Your task to perform on an android device: Add "dell alienware" to the cart on ebay.com Image 0: 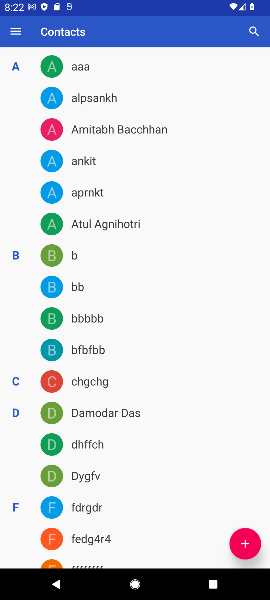
Step 0: press home button
Your task to perform on an android device: Add "dell alienware" to the cart on ebay.com Image 1: 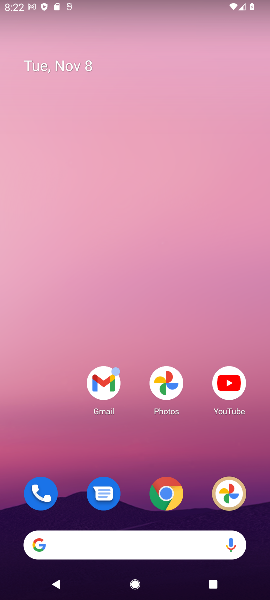
Step 1: click (175, 498)
Your task to perform on an android device: Add "dell alienware" to the cart on ebay.com Image 2: 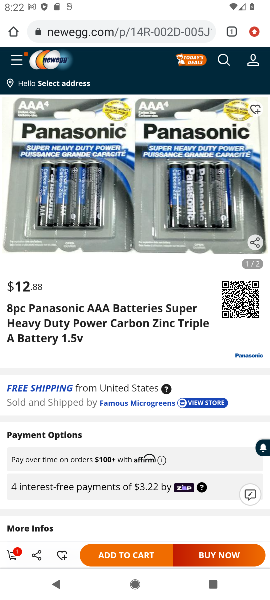
Step 2: click (129, 37)
Your task to perform on an android device: Add "dell alienware" to the cart on ebay.com Image 3: 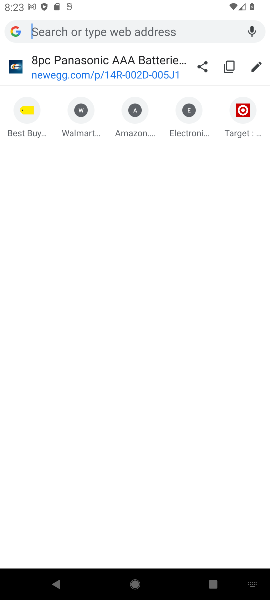
Step 3: type "ebay.com"
Your task to perform on an android device: Add "dell alienware" to the cart on ebay.com Image 4: 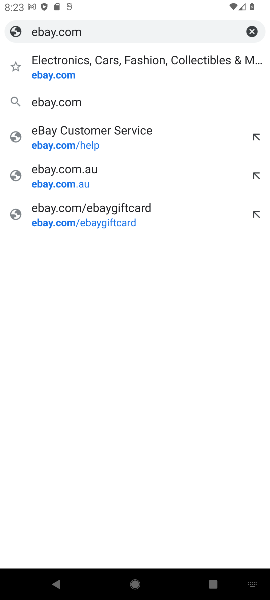
Step 4: click (60, 73)
Your task to perform on an android device: Add "dell alienware" to the cart on ebay.com Image 5: 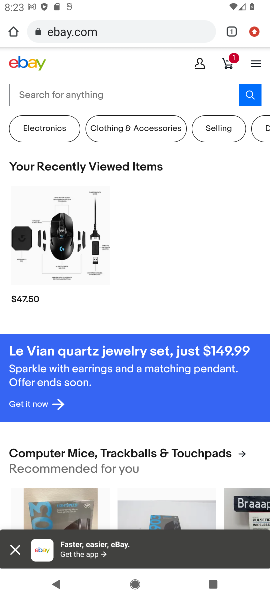
Step 5: click (243, 95)
Your task to perform on an android device: Add "dell alienware" to the cart on ebay.com Image 6: 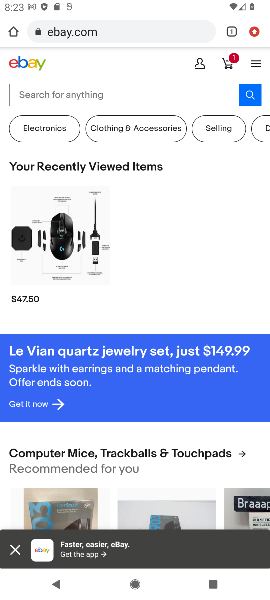
Step 6: click (103, 94)
Your task to perform on an android device: Add "dell alienware" to the cart on ebay.com Image 7: 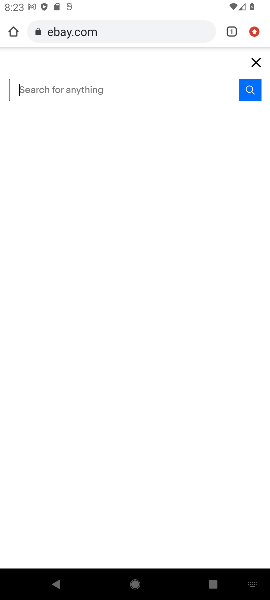
Step 7: type "dell alienware"
Your task to perform on an android device: Add "dell alienware" to the cart on ebay.com Image 8: 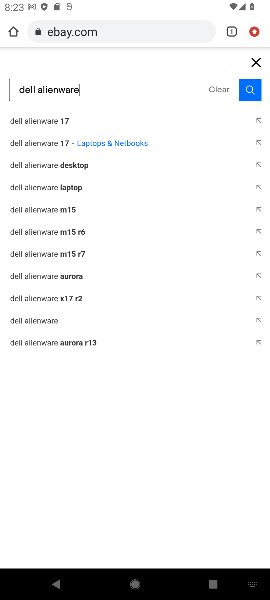
Step 8: click (253, 91)
Your task to perform on an android device: Add "dell alienware" to the cart on ebay.com Image 9: 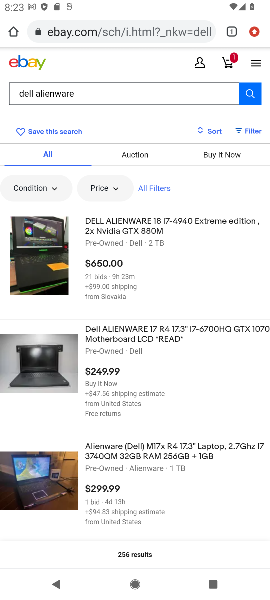
Step 9: click (68, 243)
Your task to perform on an android device: Add "dell alienware" to the cart on ebay.com Image 10: 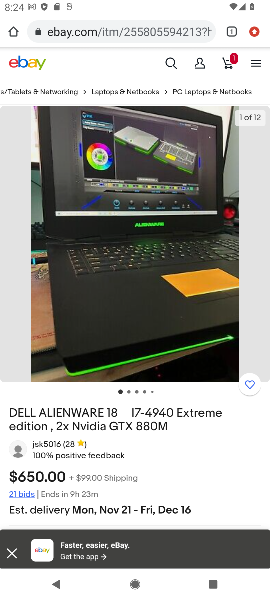
Step 10: drag from (145, 473) to (156, 203)
Your task to perform on an android device: Add "dell alienware" to the cart on ebay.com Image 11: 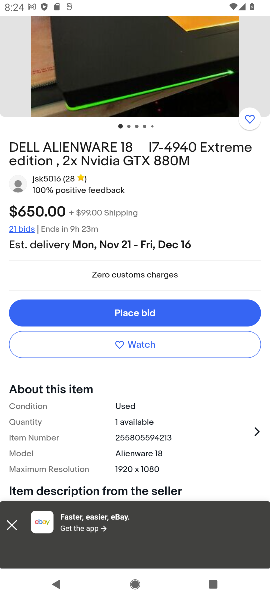
Step 11: drag from (148, 151) to (167, 397)
Your task to perform on an android device: Add "dell alienware" to the cart on ebay.com Image 12: 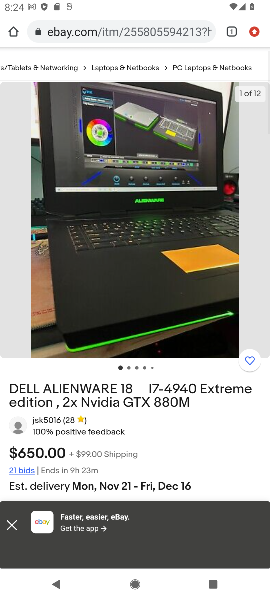
Step 12: press back button
Your task to perform on an android device: Add "dell alienware" to the cart on ebay.com Image 13: 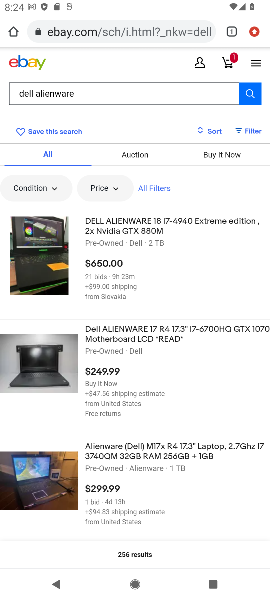
Step 13: click (94, 350)
Your task to perform on an android device: Add "dell alienware" to the cart on ebay.com Image 14: 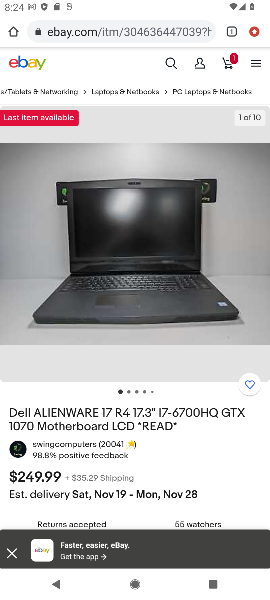
Step 14: drag from (105, 383) to (109, 208)
Your task to perform on an android device: Add "dell alienware" to the cart on ebay.com Image 15: 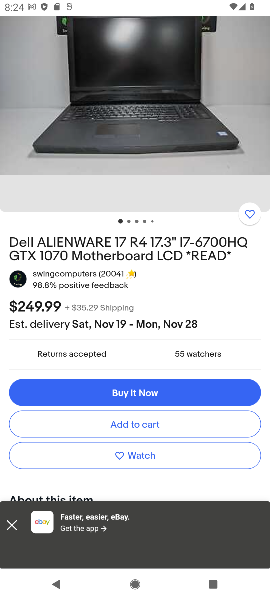
Step 15: click (117, 419)
Your task to perform on an android device: Add "dell alienware" to the cart on ebay.com Image 16: 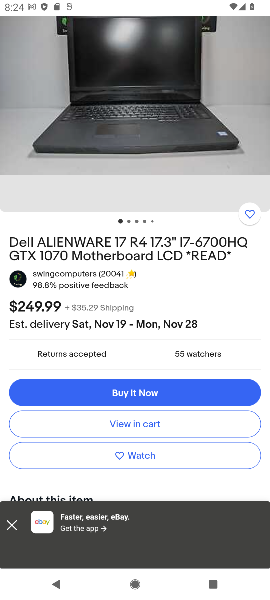
Step 16: task complete